Your task to perform on an android device: Open calendar and show me the fourth week of next month Image 0: 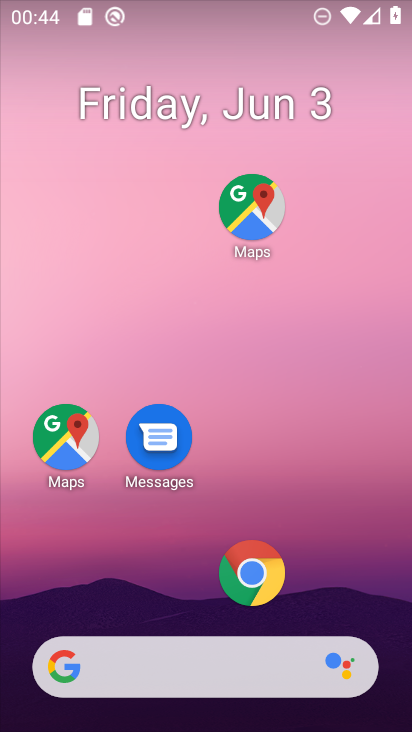
Step 0: click (200, 106)
Your task to perform on an android device: Open calendar and show me the fourth week of next month Image 1: 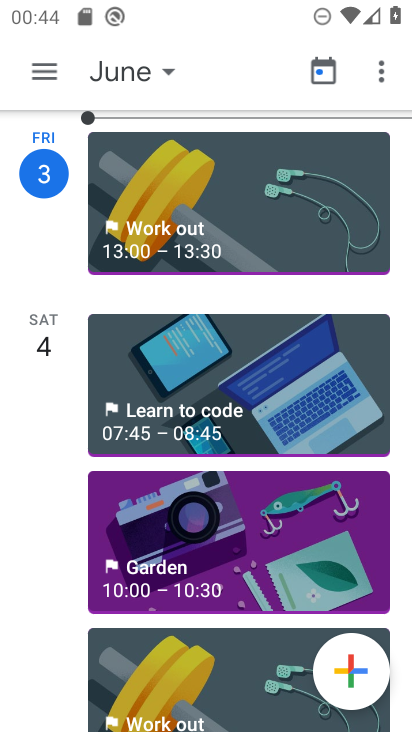
Step 1: click (49, 78)
Your task to perform on an android device: Open calendar and show me the fourth week of next month Image 2: 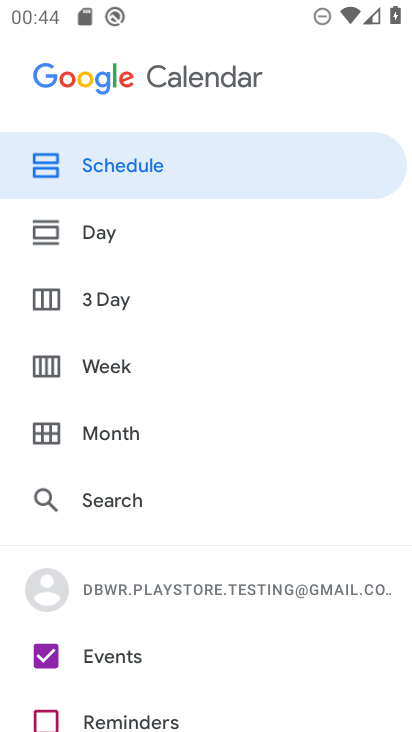
Step 2: click (111, 371)
Your task to perform on an android device: Open calendar and show me the fourth week of next month Image 3: 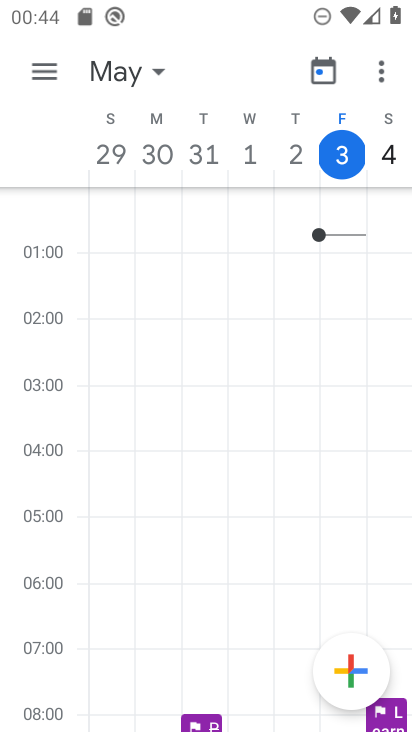
Step 3: click (152, 77)
Your task to perform on an android device: Open calendar and show me the fourth week of next month Image 4: 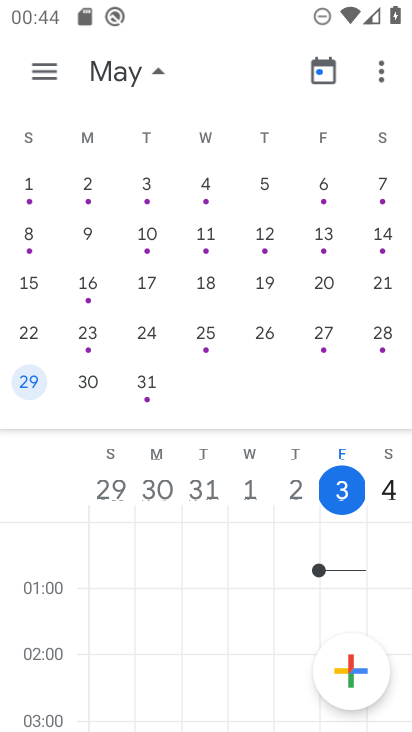
Step 4: drag from (367, 363) to (0, 296)
Your task to perform on an android device: Open calendar and show me the fourth week of next month Image 5: 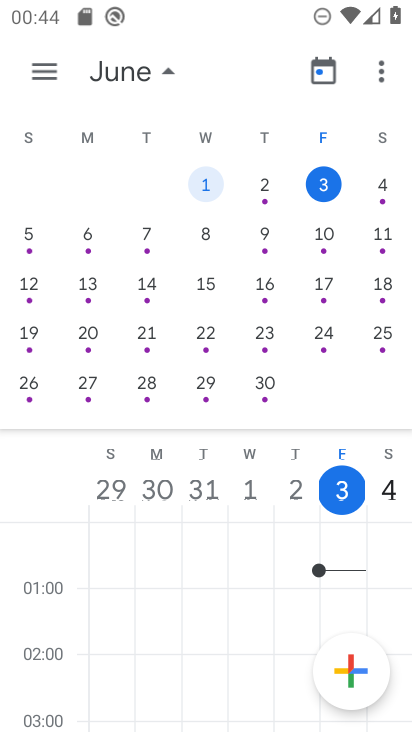
Step 5: drag from (365, 389) to (11, 233)
Your task to perform on an android device: Open calendar and show me the fourth week of next month Image 6: 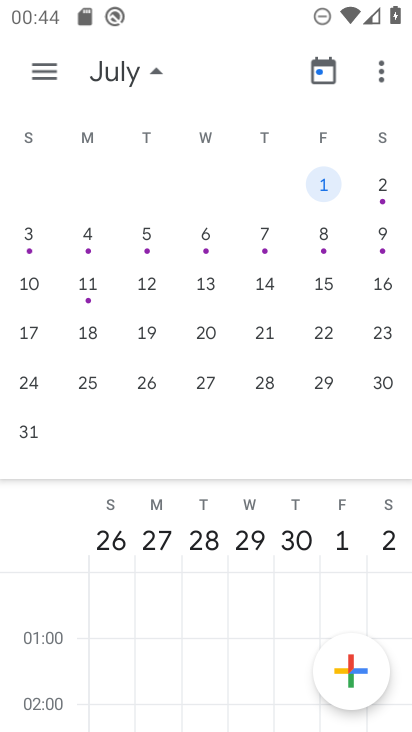
Step 6: click (202, 332)
Your task to perform on an android device: Open calendar and show me the fourth week of next month Image 7: 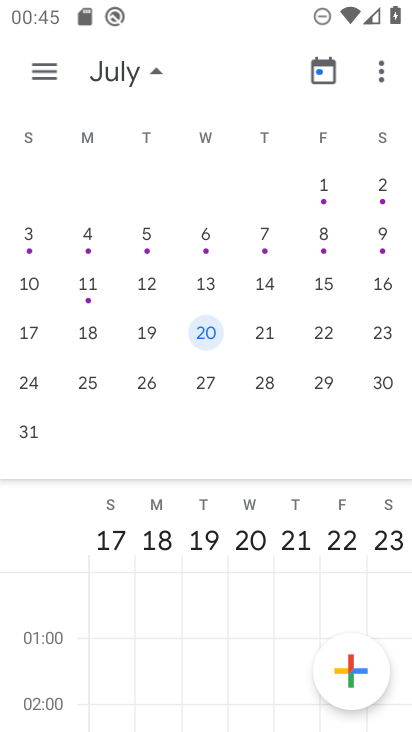
Step 7: task complete